Your task to perform on an android device: Set the phone to "Do not disturb". Image 0: 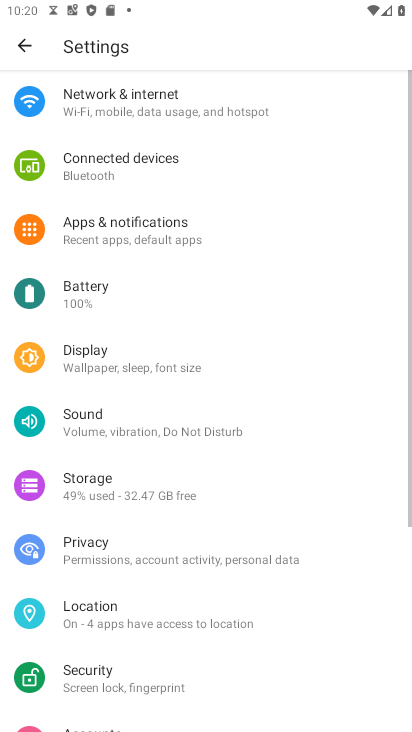
Step 0: press home button
Your task to perform on an android device: Set the phone to "Do not disturb". Image 1: 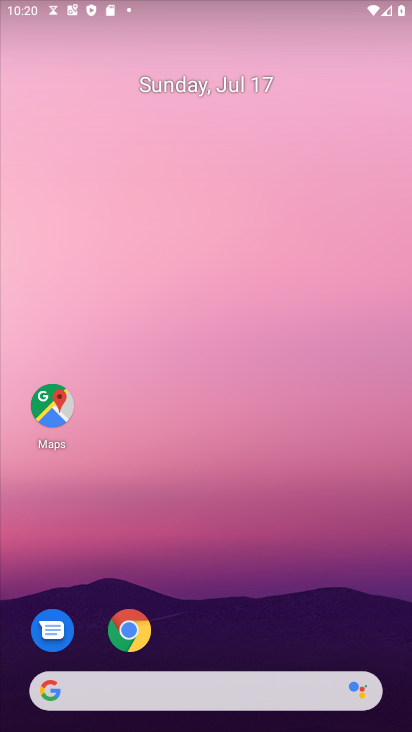
Step 1: drag from (284, 700) to (153, 3)
Your task to perform on an android device: Set the phone to "Do not disturb". Image 2: 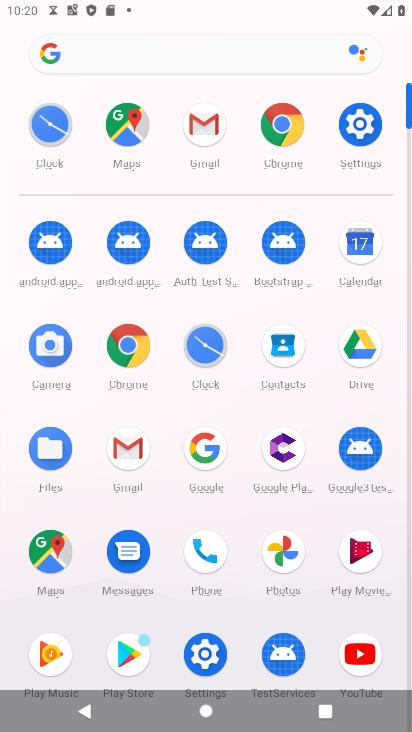
Step 2: click (367, 134)
Your task to perform on an android device: Set the phone to "Do not disturb". Image 3: 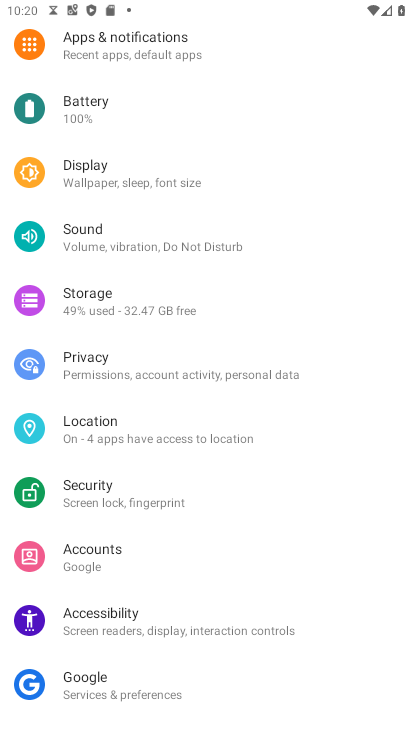
Step 3: click (114, 228)
Your task to perform on an android device: Set the phone to "Do not disturb". Image 4: 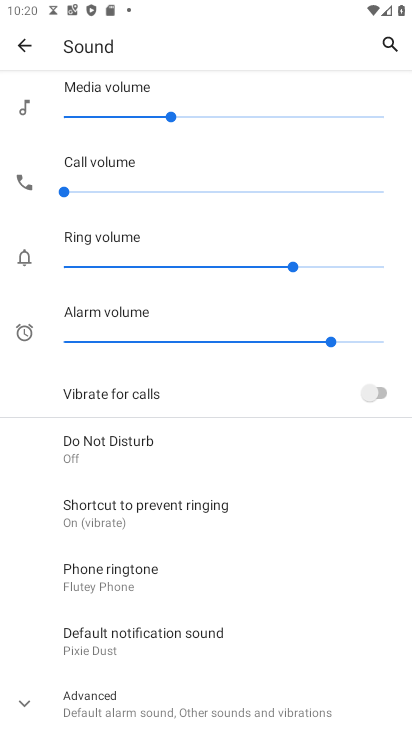
Step 4: click (88, 442)
Your task to perform on an android device: Set the phone to "Do not disturb". Image 5: 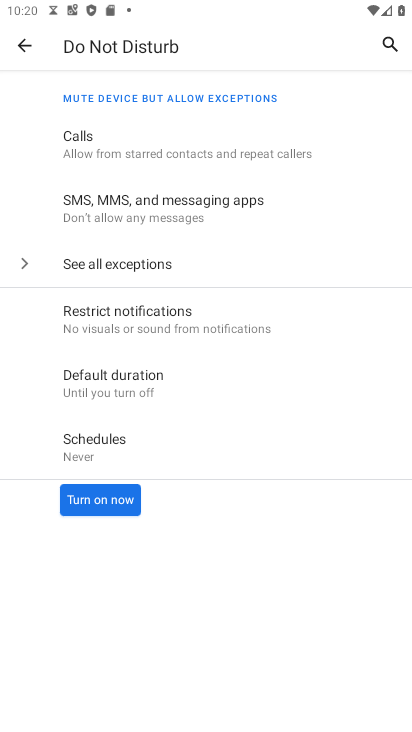
Step 5: click (106, 497)
Your task to perform on an android device: Set the phone to "Do not disturb". Image 6: 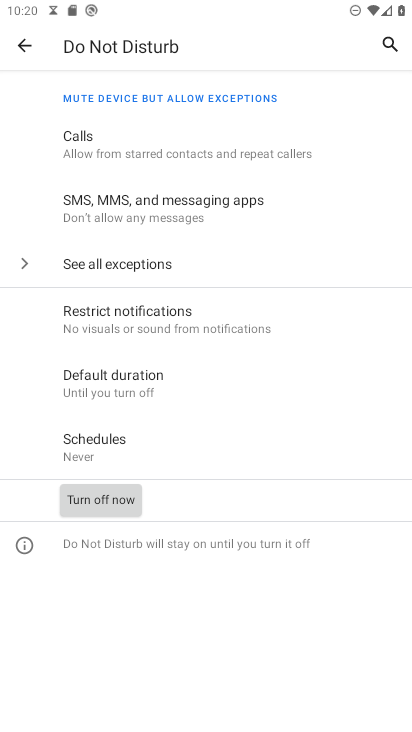
Step 6: task complete